Your task to perform on an android device: turn off smart reply in the gmail app Image 0: 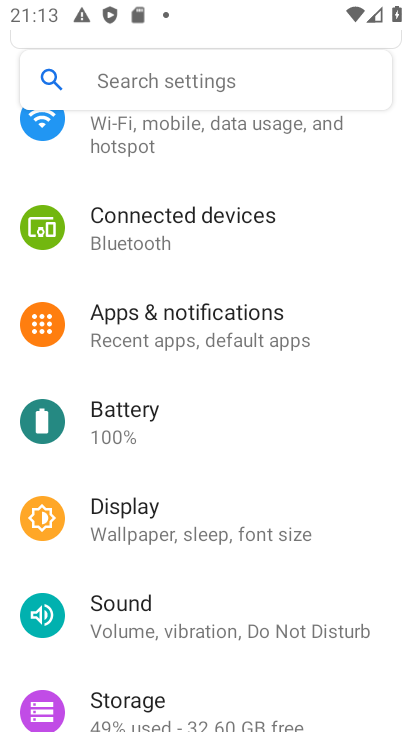
Step 0: press home button
Your task to perform on an android device: turn off smart reply in the gmail app Image 1: 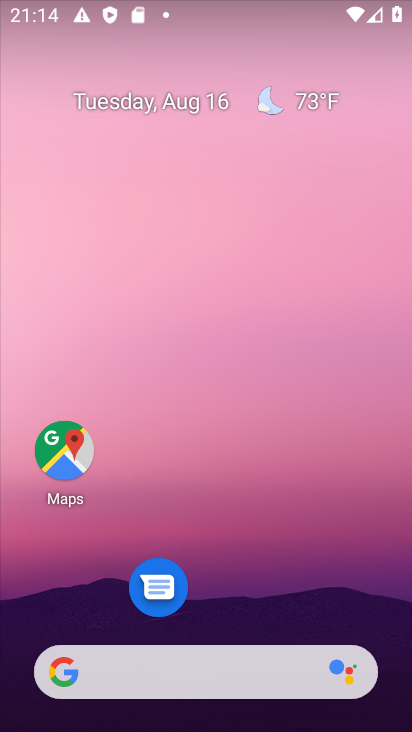
Step 1: drag from (251, 646) to (251, 41)
Your task to perform on an android device: turn off smart reply in the gmail app Image 2: 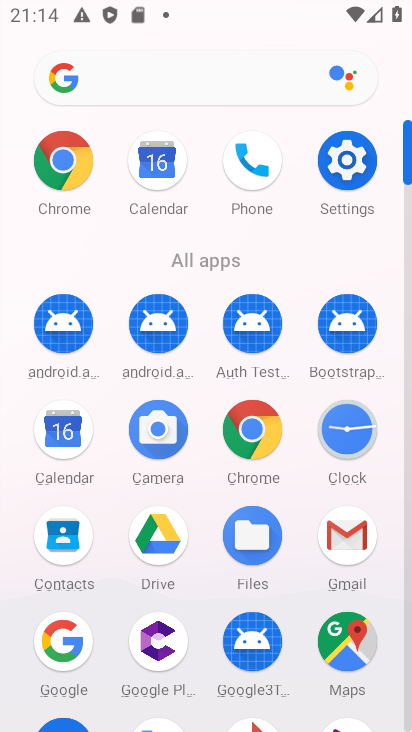
Step 2: click (336, 527)
Your task to perform on an android device: turn off smart reply in the gmail app Image 3: 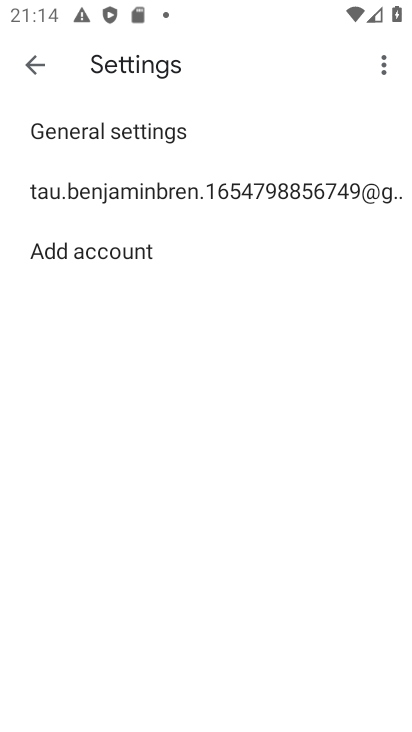
Step 3: click (113, 195)
Your task to perform on an android device: turn off smart reply in the gmail app Image 4: 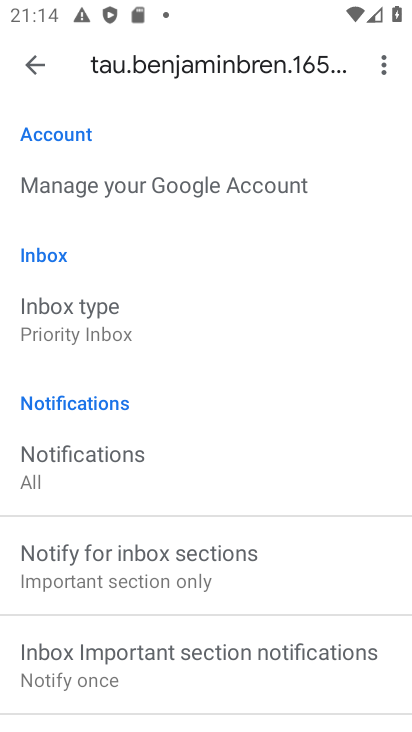
Step 4: drag from (328, 569) to (278, 114)
Your task to perform on an android device: turn off smart reply in the gmail app Image 5: 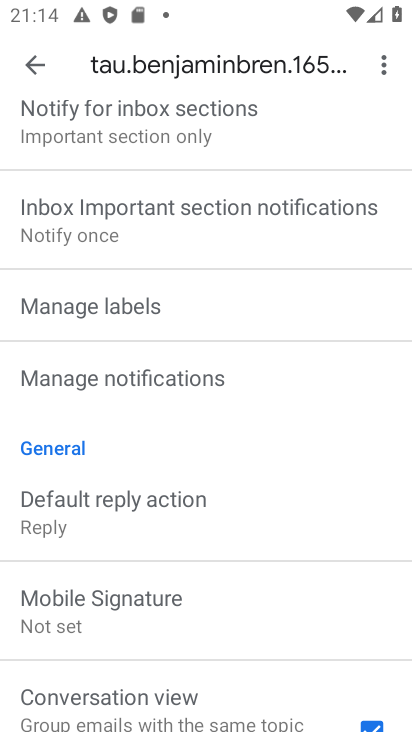
Step 5: drag from (267, 633) to (216, 133)
Your task to perform on an android device: turn off smart reply in the gmail app Image 6: 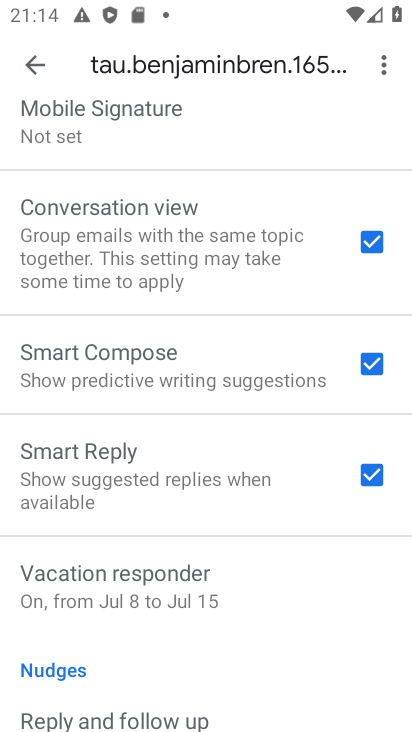
Step 6: click (366, 479)
Your task to perform on an android device: turn off smart reply in the gmail app Image 7: 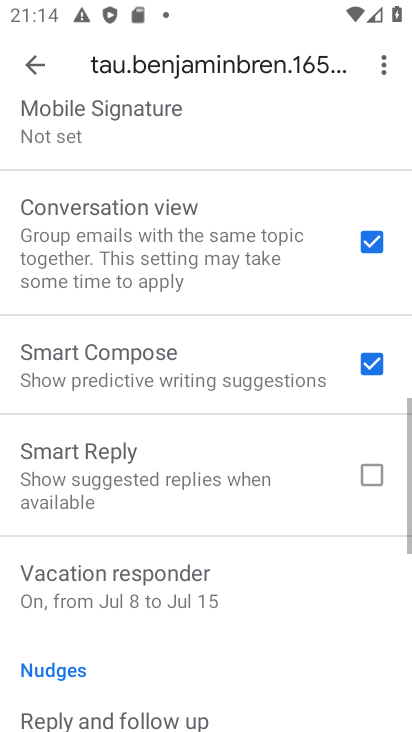
Step 7: task complete